Your task to perform on an android device: Open the web browser Image 0: 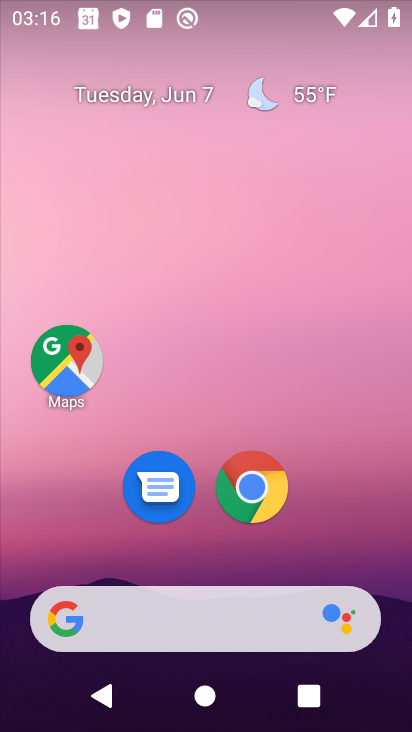
Step 0: drag from (264, 625) to (211, 142)
Your task to perform on an android device: Open the web browser Image 1: 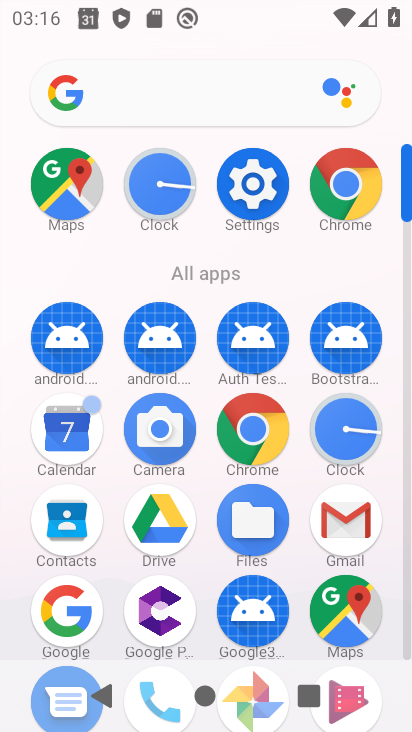
Step 1: click (332, 189)
Your task to perform on an android device: Open the web browser Image 2: 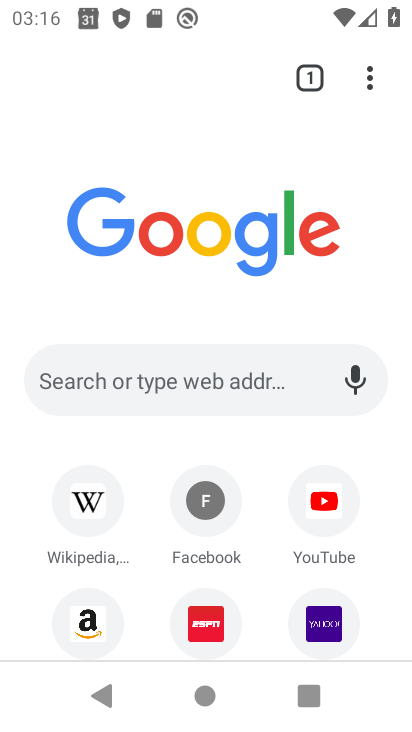
Step 2: click (86, 163)
Your task to perform on an android device: Open the web browser Image 3: 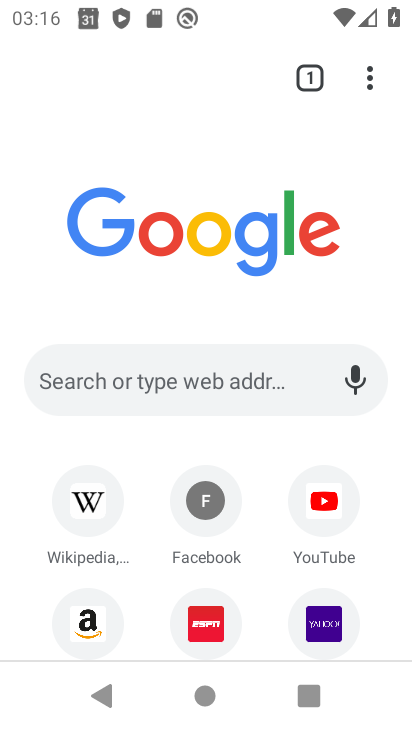
Step 3: task complete